Your task to perform on an android device: toggle airplane mode Image 0: 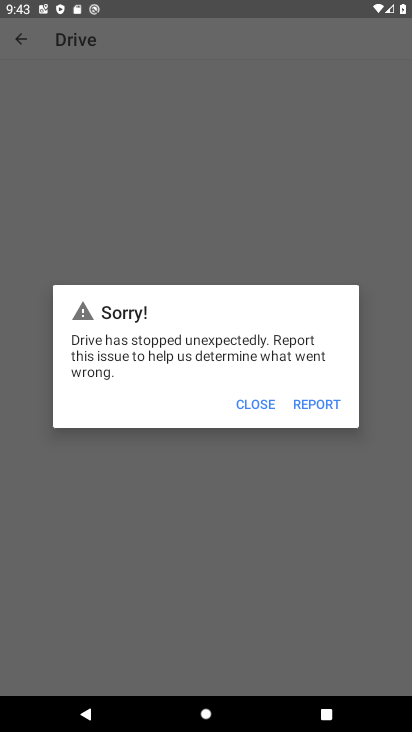
Step 0: press home button
Your task to perform on an android device: toggle airplane mode Image 1: 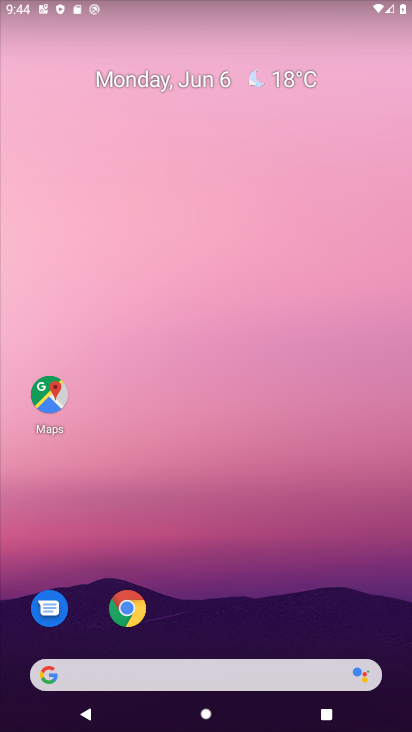
Step 1: drag from (274, 588) to (173, 175)
Your task to perform on an android device: toggle airplane mode Image 2: 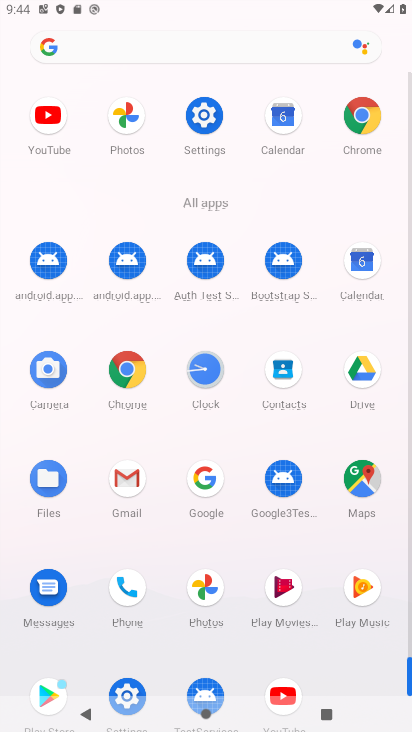
Step 2: click (205, 116)
Your task to perform on an android device: toggle airplane mode Image 3: 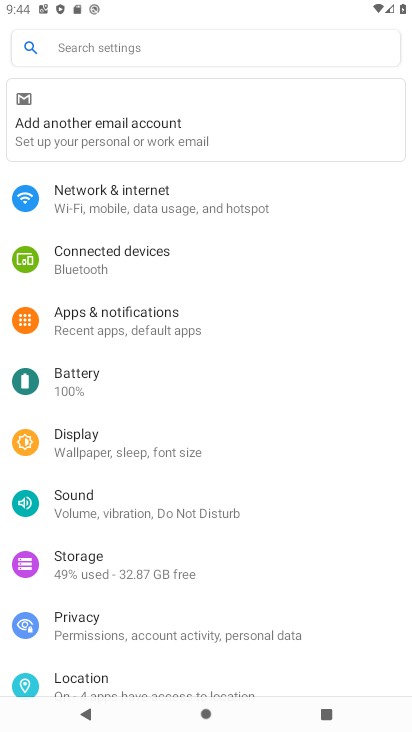
Step 3: click (163, 215)
Your task to perform on an android device: toggle airplane mode Image 4: 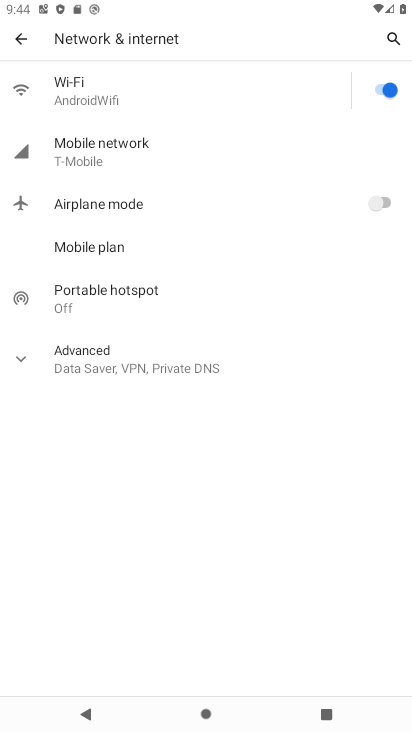
Step 4: click (372, 210)
Your task to perform on an android device: toggle airplane mode Image 5: 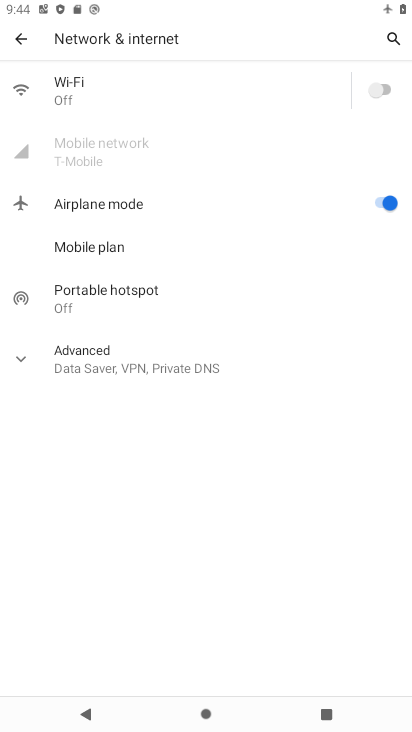
Step 5: task complete